Your task to perform on an android device: Go to sound settings Image 0: 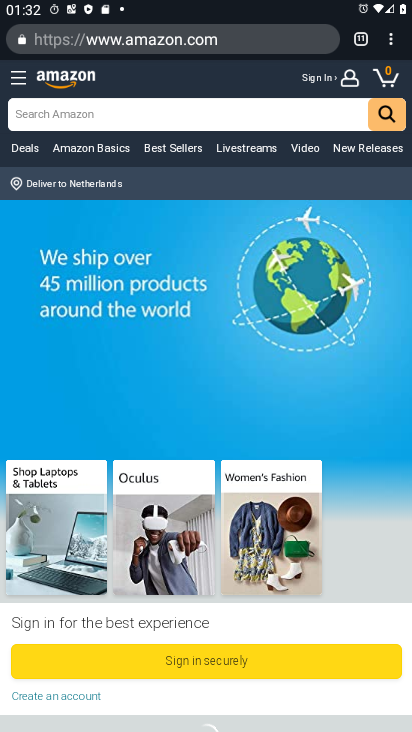
Step 0: press home button
Your task to perform on an android device: Go to sound settings Image 1: 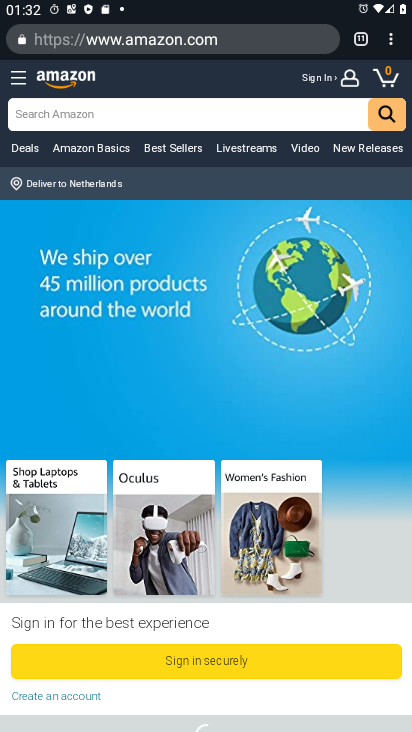
Step 1: press home button
Your task to perform on an android device: Go to sound settings Image 2: 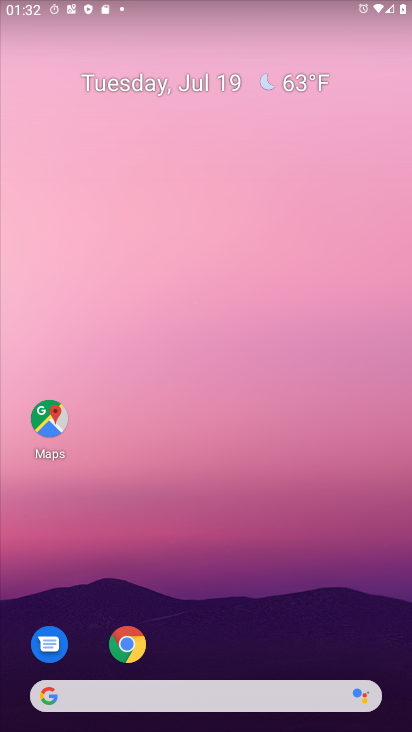
Step 2: drag from (199, 723) to (191, 245)
Your task to perform on an android device: Go to sound settings Image 3: 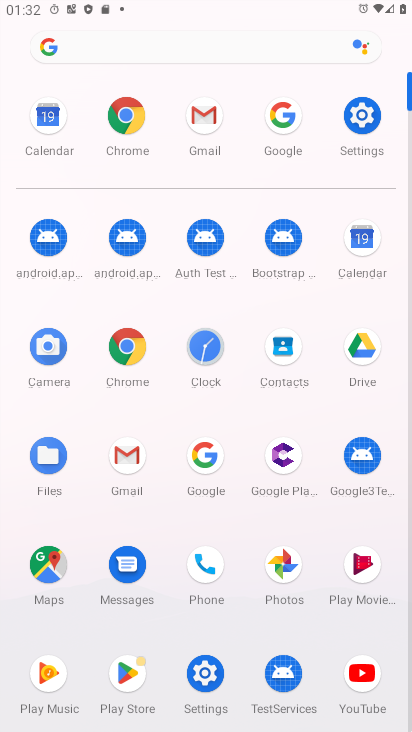
Step 3: click (355, 121)
Your task to perform on an android device: Go to sound settings Image 4: 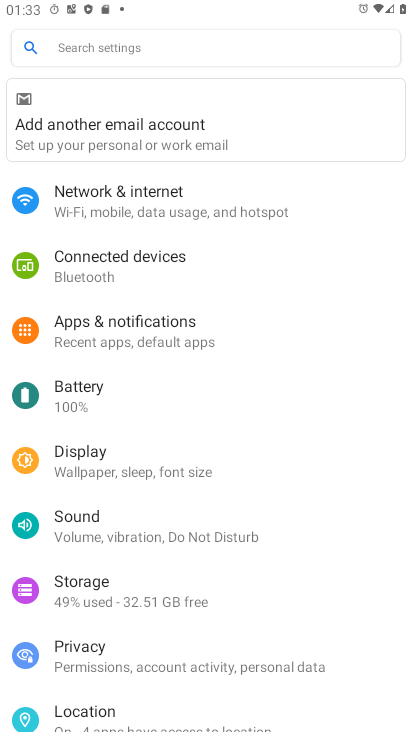
Step 4: click (91, 522)
Your task to perform on an android device: Go to sound settings Image 5: 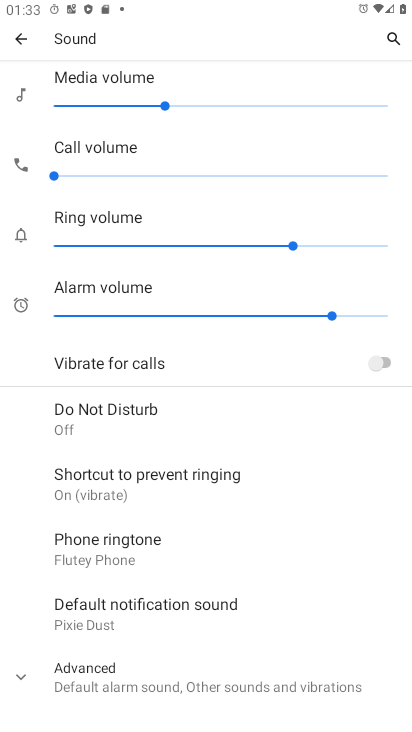
Step 5: task complete